Your task to perform on an android device: turn off sleep mode Image 0: 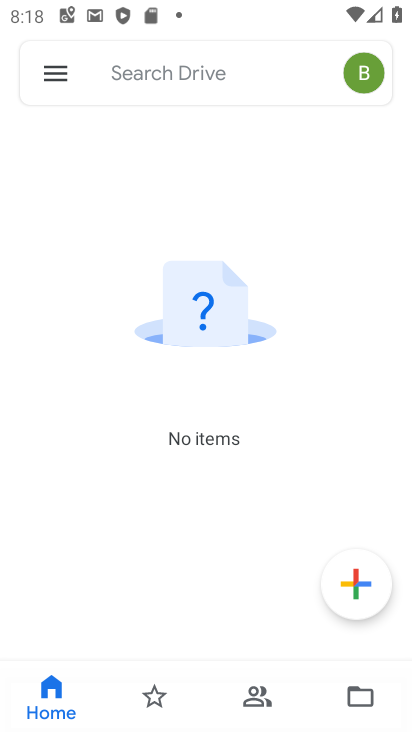
Step 0: press home button
Your task to perform on an android device: turn off sleep mode Image 1: 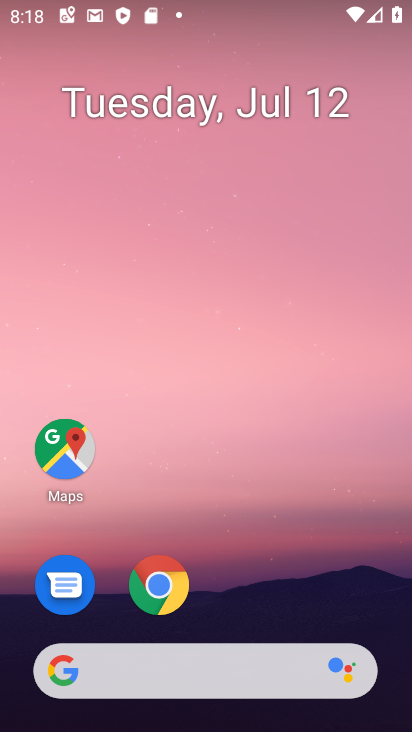
Step 1: drag from (261, 591) to (215, 0)
Your task to perform on an android device: turn off sleep mode Image 2: 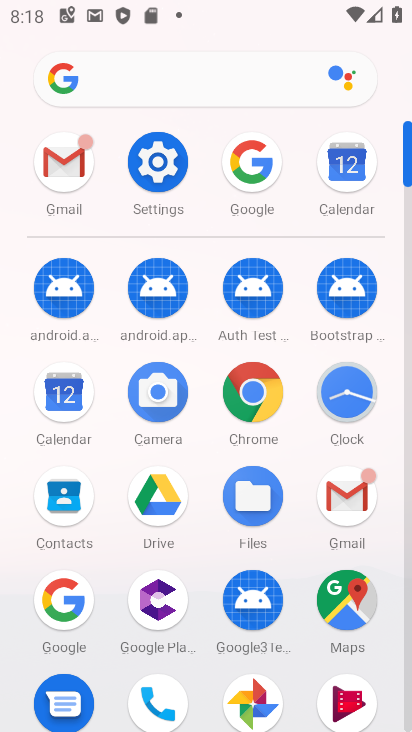
Step 2: click (165, 150)
Your task to perform on an android device: turn off sleep mode Image 3: 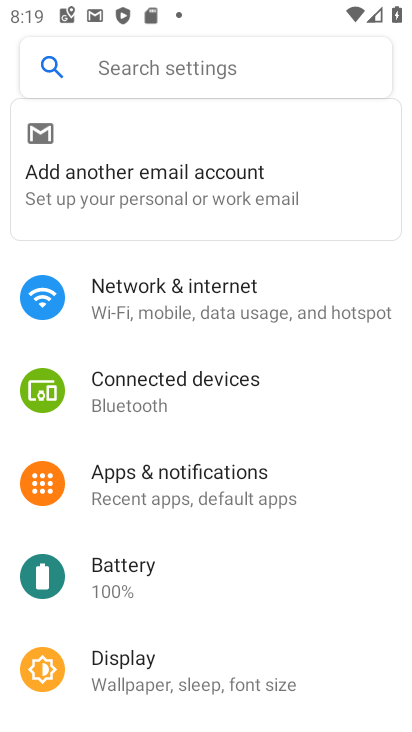
Step 3: click (210, 676)
Your task to perform on an android device: turn off sleep mode Image 4: 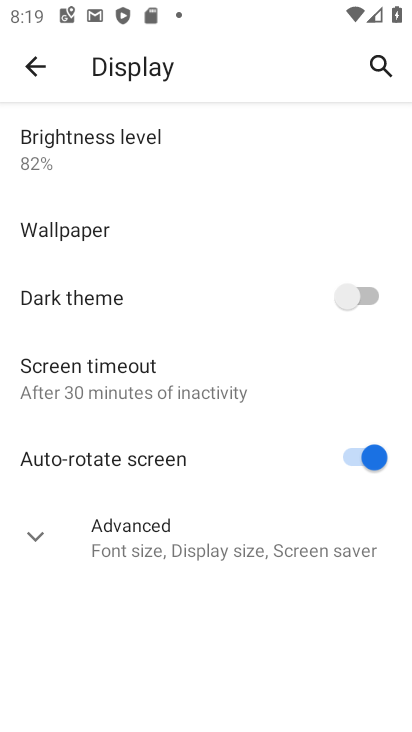
Step 4: click (40, 536)
Your task to perform on an android device: turn off sleep mode Image 5: 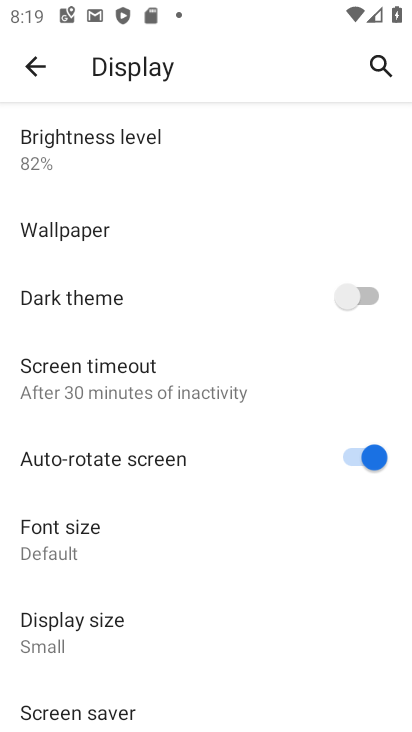
Step 5: task complete